Your task to perform on an android device: visit the assistant section in the google photos Image 0: 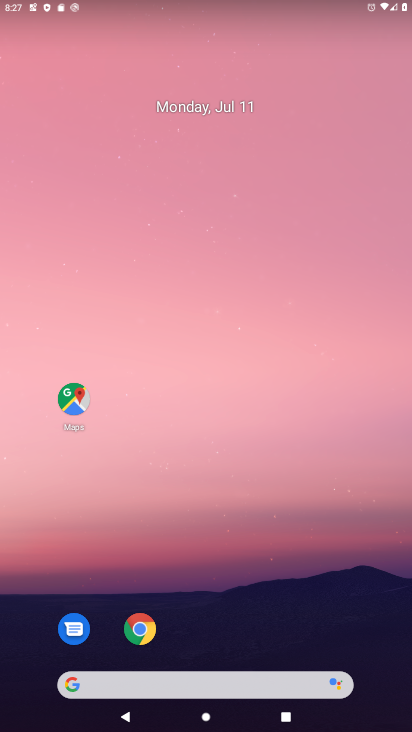
Step 0: drag from (226, 629) to (256, 50)
Your task to perform on an android device: visit the assistant section in the google photos Image 1: 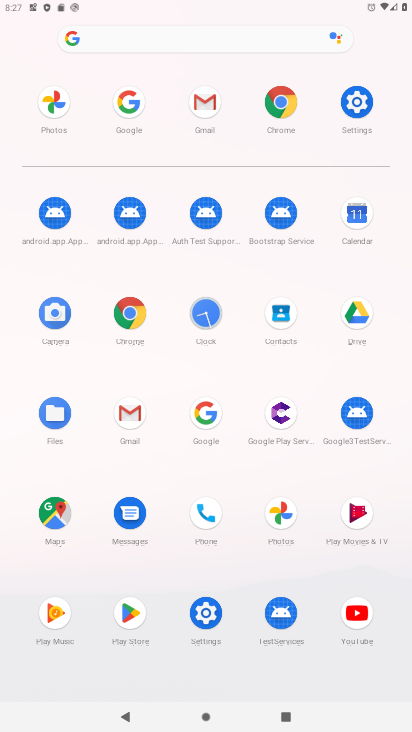
Step 1: click (280, 511)
Your task to perform on an android device: visit the assistant section in the google photos Image 2: 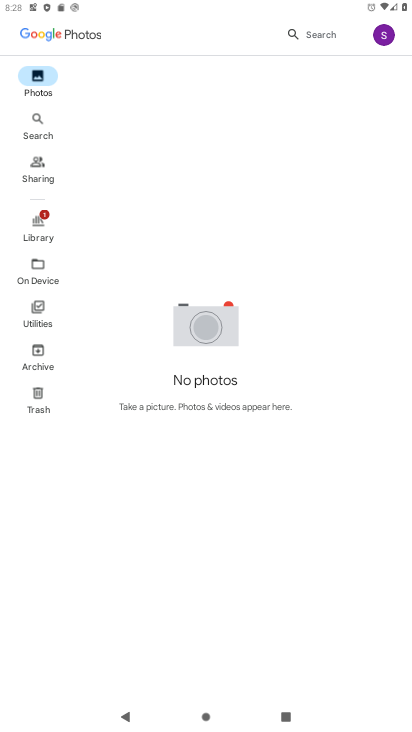
Step 2: click (382, 33)
Your task to perform on an android device: visit the assistant section in the google photos Image 3: 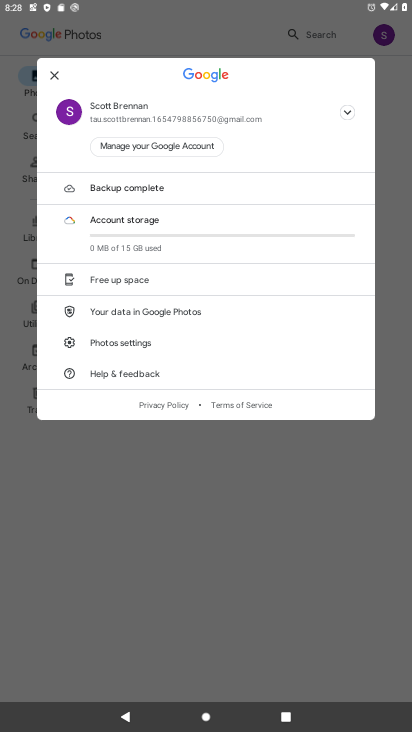
Step 3: click (330, 535)
Your task to perform on an android device: visit the assistant section in the google photos Image 4: 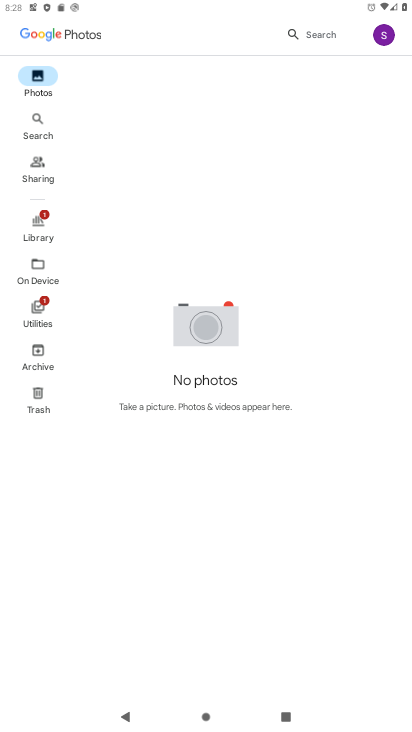
Step 4: task complete